Your task to perform on an android device: change the clock display to analog Image 0: 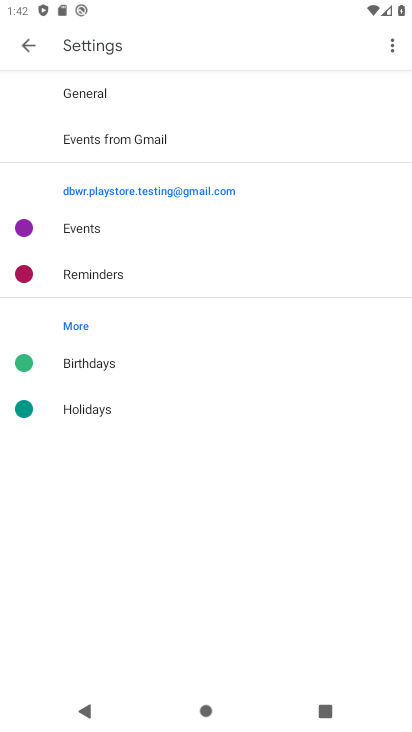
Step 0: press home button
Your task to perform on an android device: change the clock display to analog Image 1: 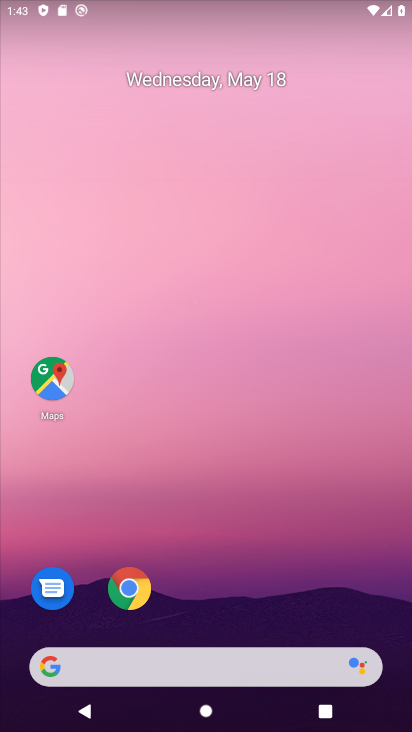
Step 1: drag from (215, 636) to (317, 136)
Your task to perform on an android device: change the clock display to analog Image 2: 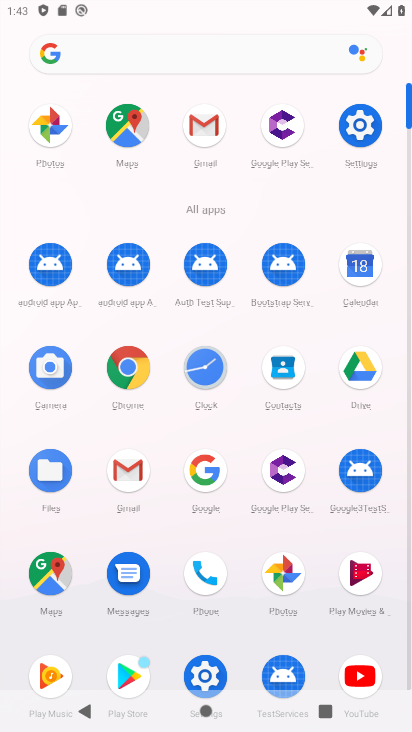
Step 2: click (207, 381)
Your task to perform on an android device: change the clock display to analog Image 3: 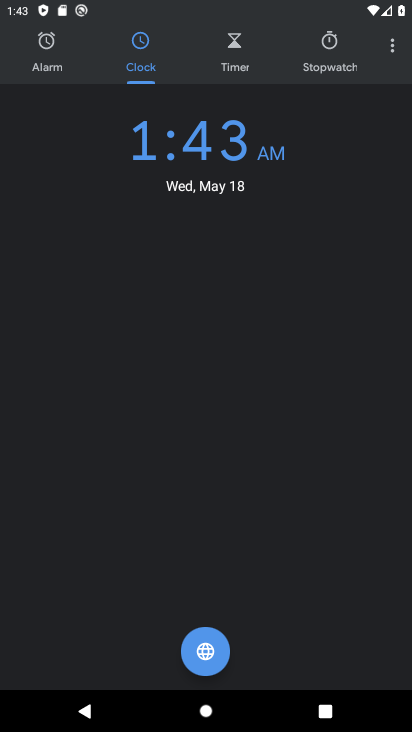
Step 3: click (391, 46)
Your task to perform on an android device: change the clock display to analog Image 4: 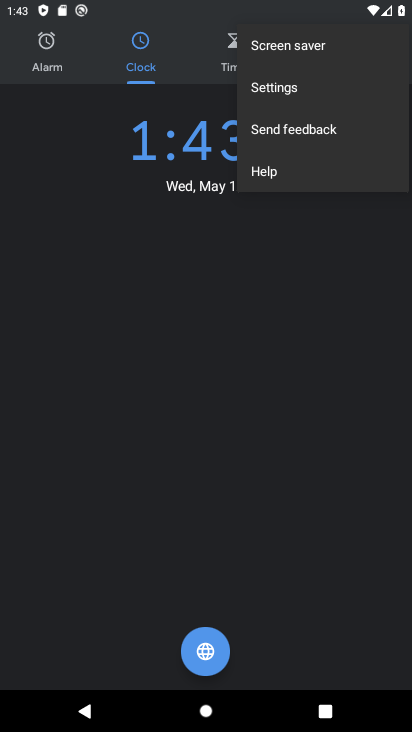
Step 4: click (354, 98)
Your task to perform on an android device: change the clock display to analog Image 5: 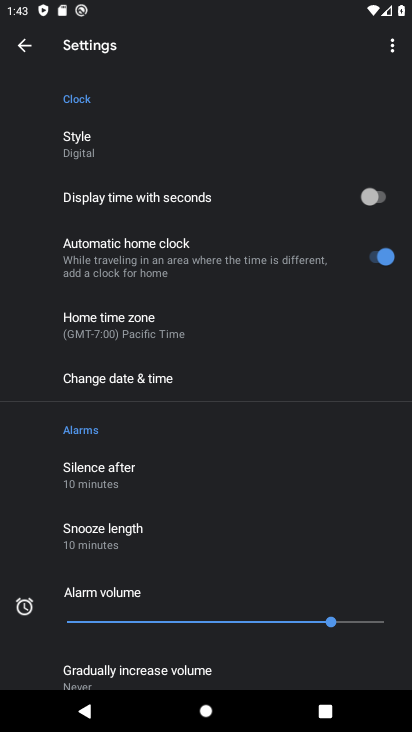
Step 5: click (151, 151)
Your task to perform on an android device: change the clock display to analog Image 6: 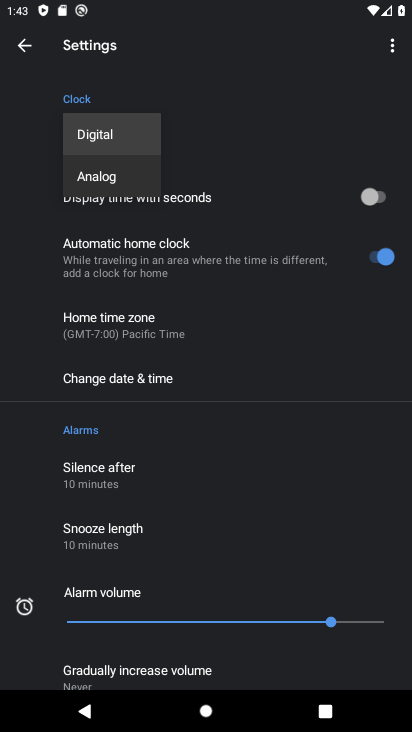
Step 6: click (142, 170)
Your task to perform on an android device: change the clock display to analog Image 7: 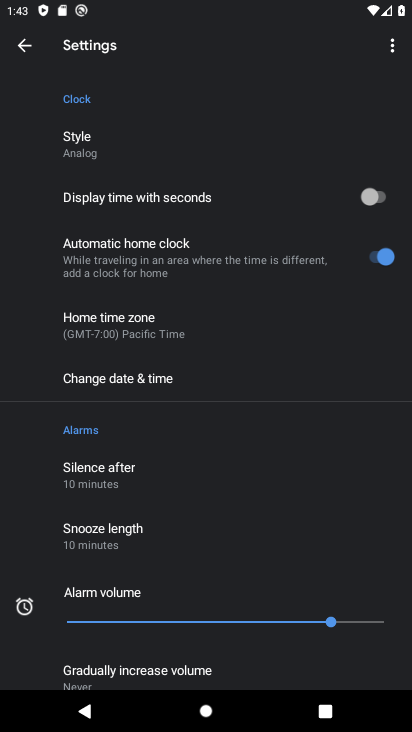
Step 7: task complete